Your task to perform on an android device: What's the weather going to be this weekend? Image 0: 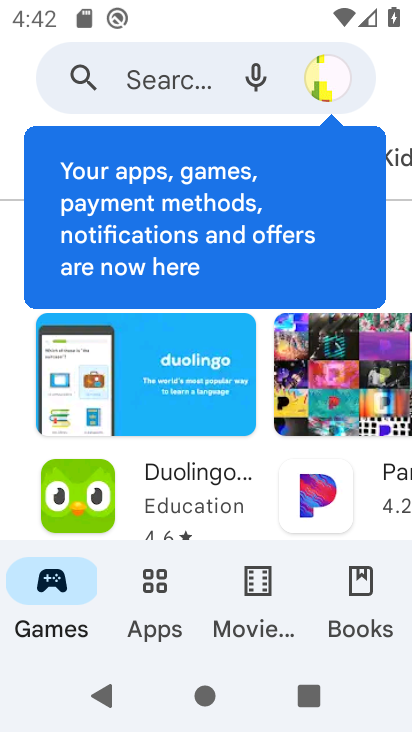
Step 0: press home button
Your task to perform on an android device: What's the weather going to be this weekend? Image 1: 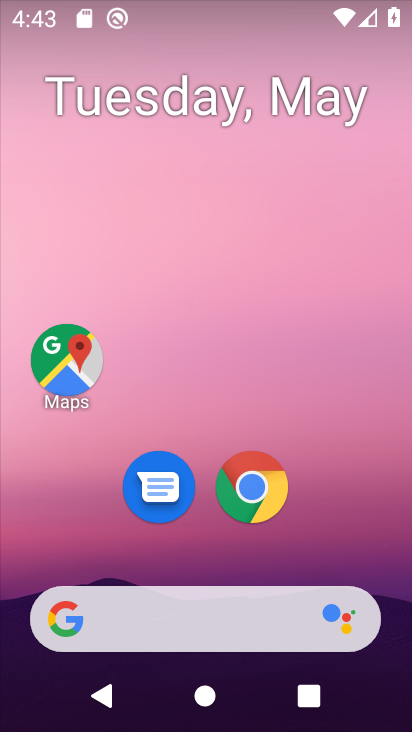
Step 1: drag from (355, 482) to (301, 146)
Your task to perform on an android device: What's the weather going to be this weekend? Image 2: 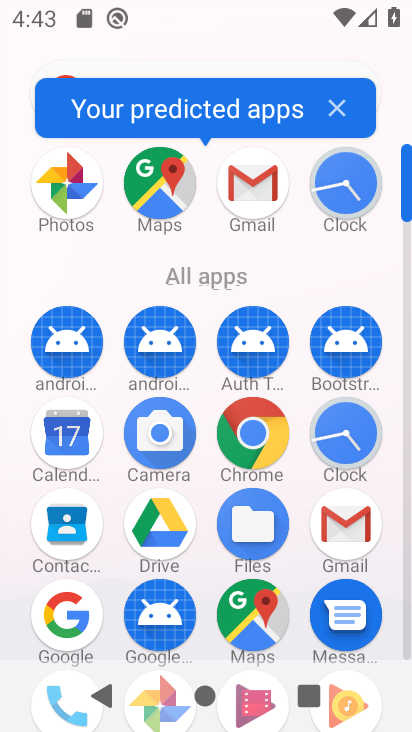
Step 2: click (165, 102)
Your task to perform on an android device: What's the weather going to be this weekend? Image 3: 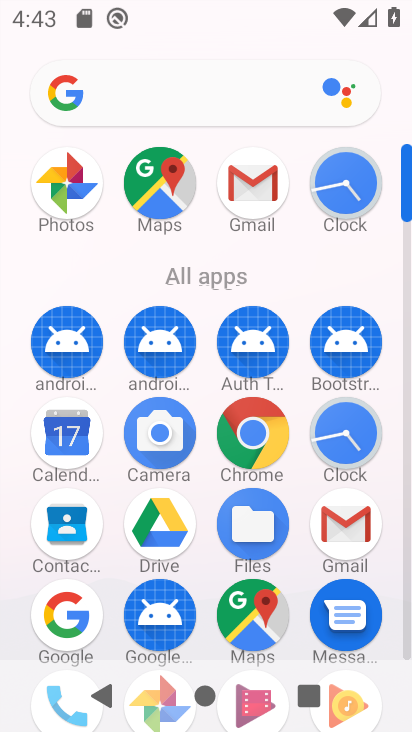
Step 3: click (165, 102)
Your task to perform on an android device: What's the weather going to be this weekend? Image 4: 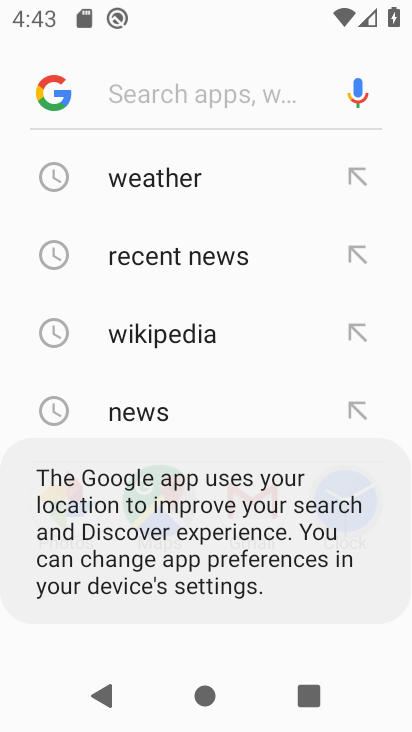
Step 4: click (172, 171)
Your task to perform on an android device: What's the weather going to be this weekend? Image 5: 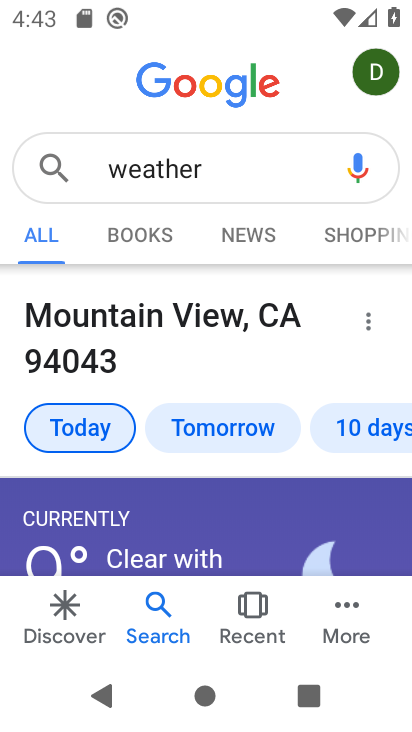
Step 5: click (341, 418)
Your task to perform on an android device: What's the weather going to be this weekend? Image 6: 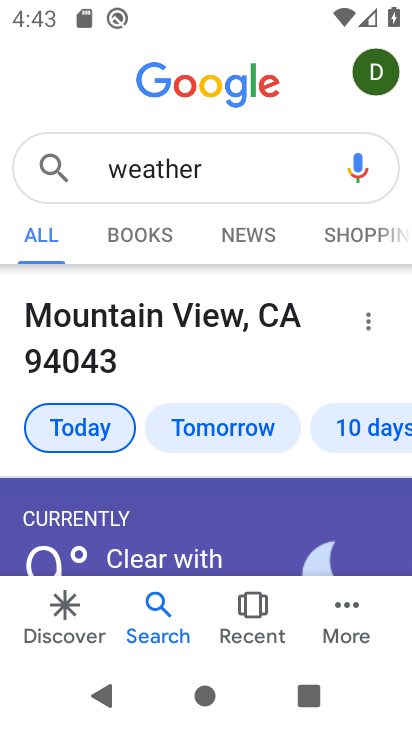
Step 6: click (341, 418)
Your task to perform on an android device: What's the weather going to be this weekend? Image 7: 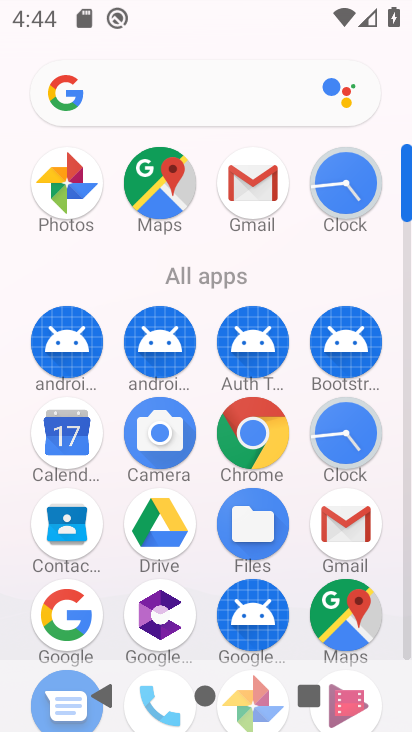
Step 7: click (209, 106)
Your task to perform on an android device: What's the weather going to be this weekend? Image 8: 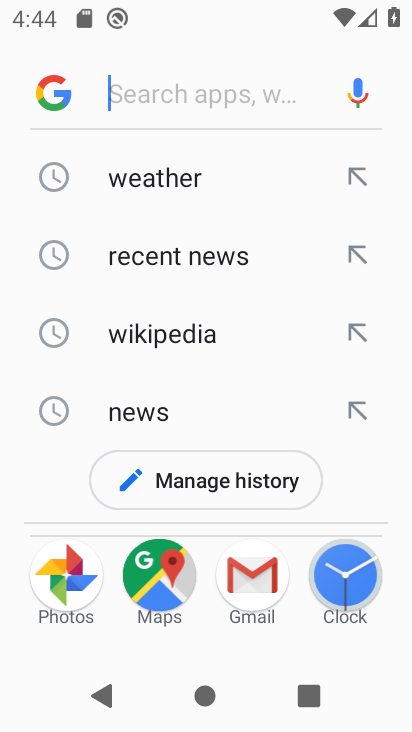
Step 8: click (162, 187)
Your task to perform on an android device: What's the weather going to be this weekend? Image 9: 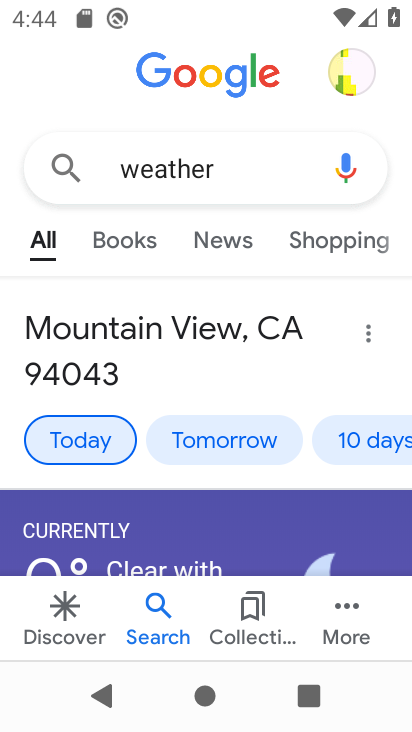
Step 9: click (364, 443)
Your task to perform on an android device: What's the weather going to be this weekend? Image 10: 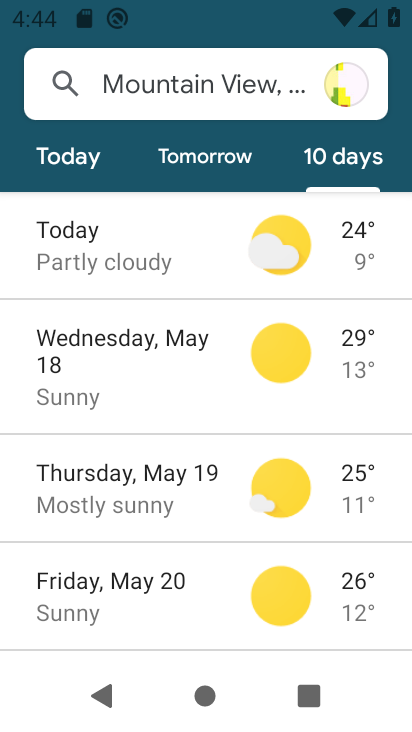
Step 10: task complete